Your task to perform on an android device: change keyboard looks Image 0: 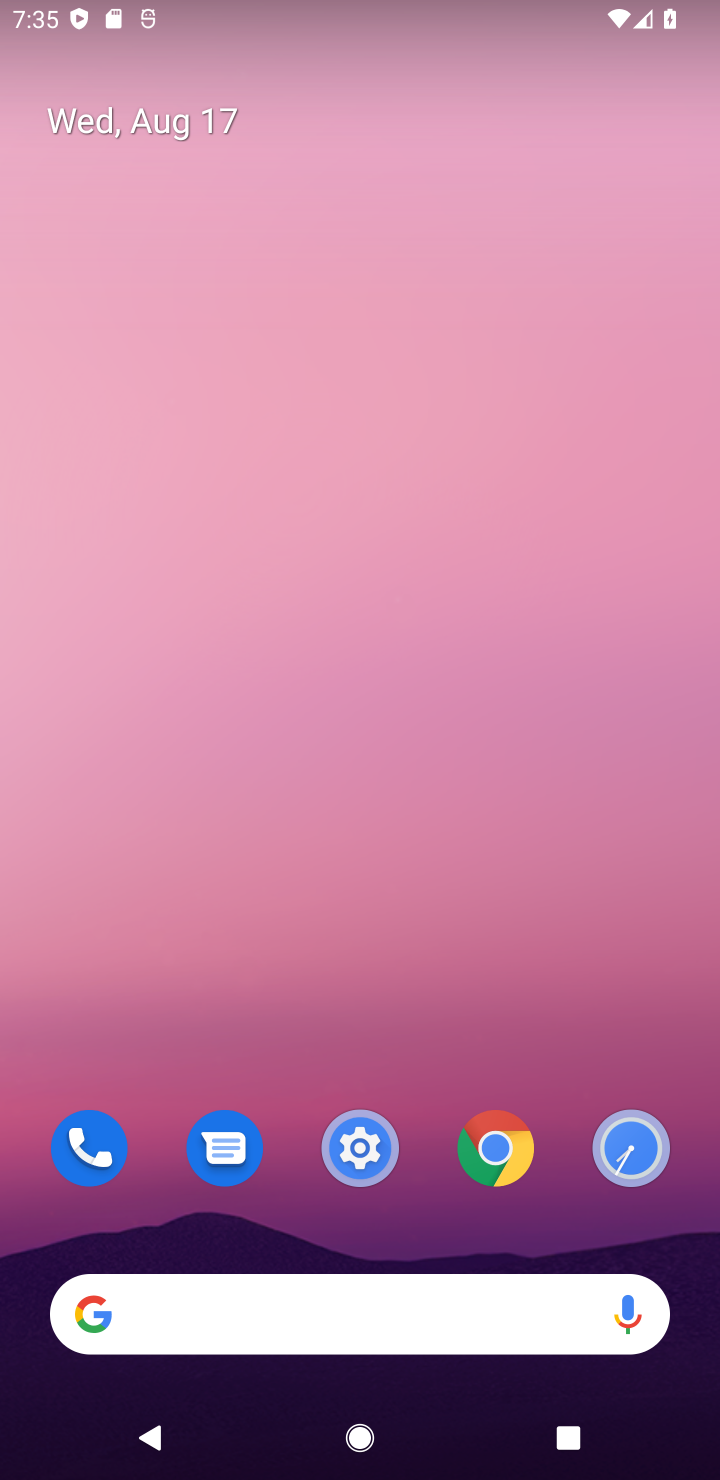
Step 0: click (360, 1149)
Your task to perform on an android device: change keyboard looks Image 1: 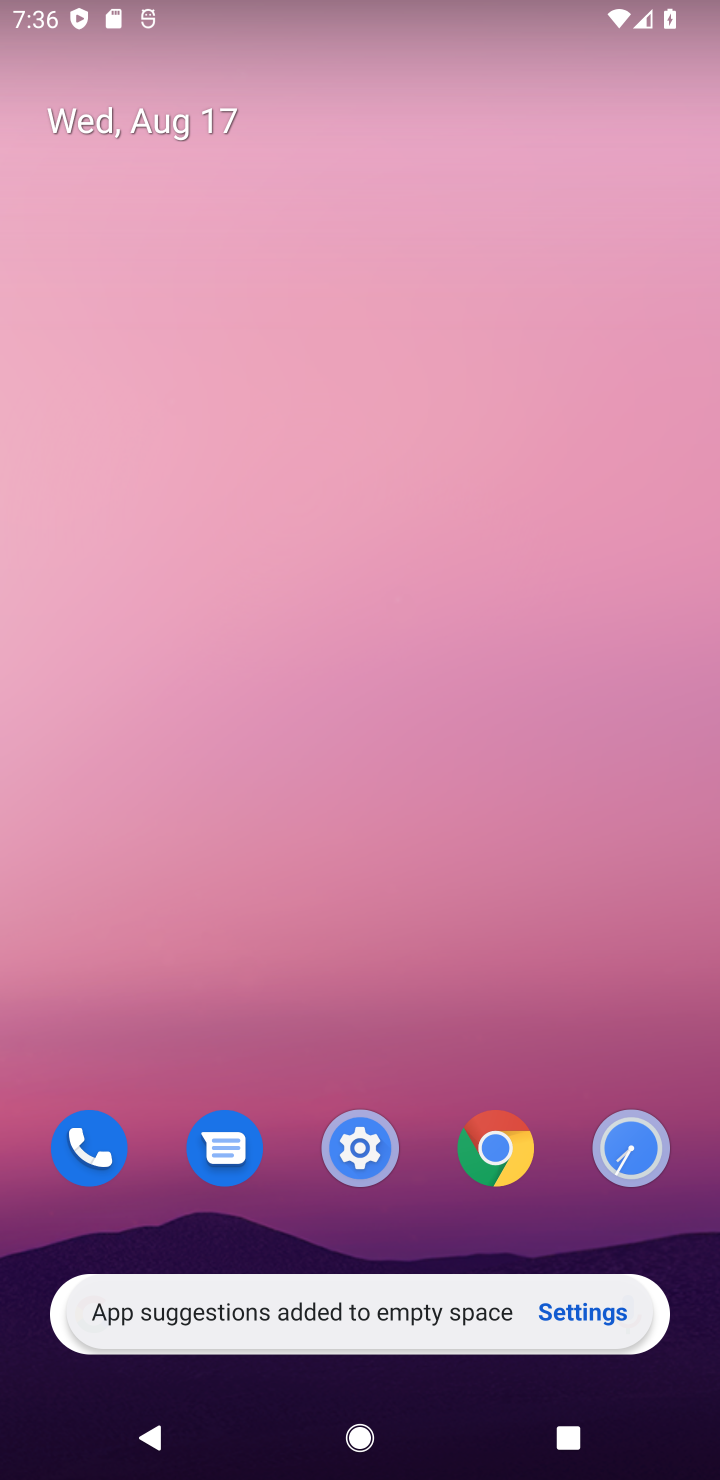
Step 1: click (360, 1149)
Your task to perform on an android device: change keyboard looks Image 2: 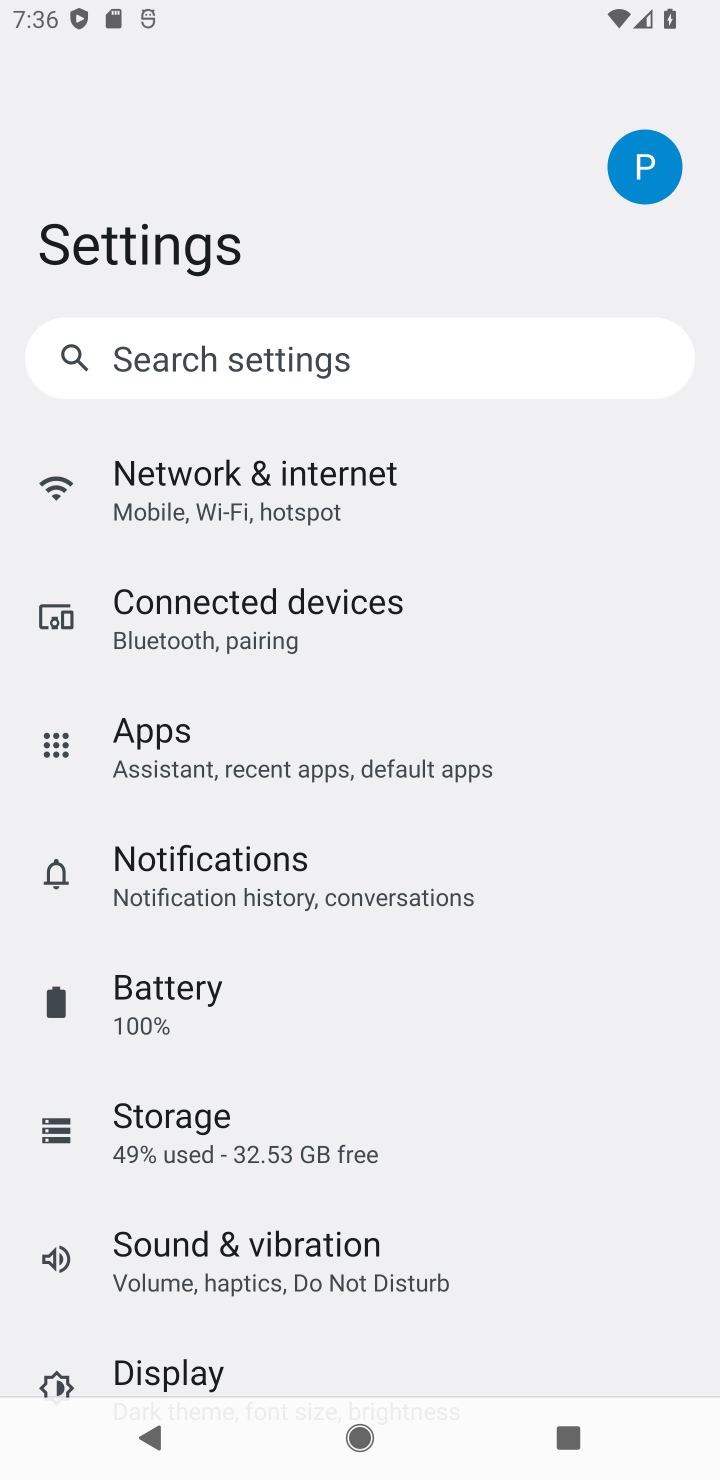
Step 2: drag from (561, 1298) to (542, 546)
Your task to perform on an android device: change keyboard looks Image 3: 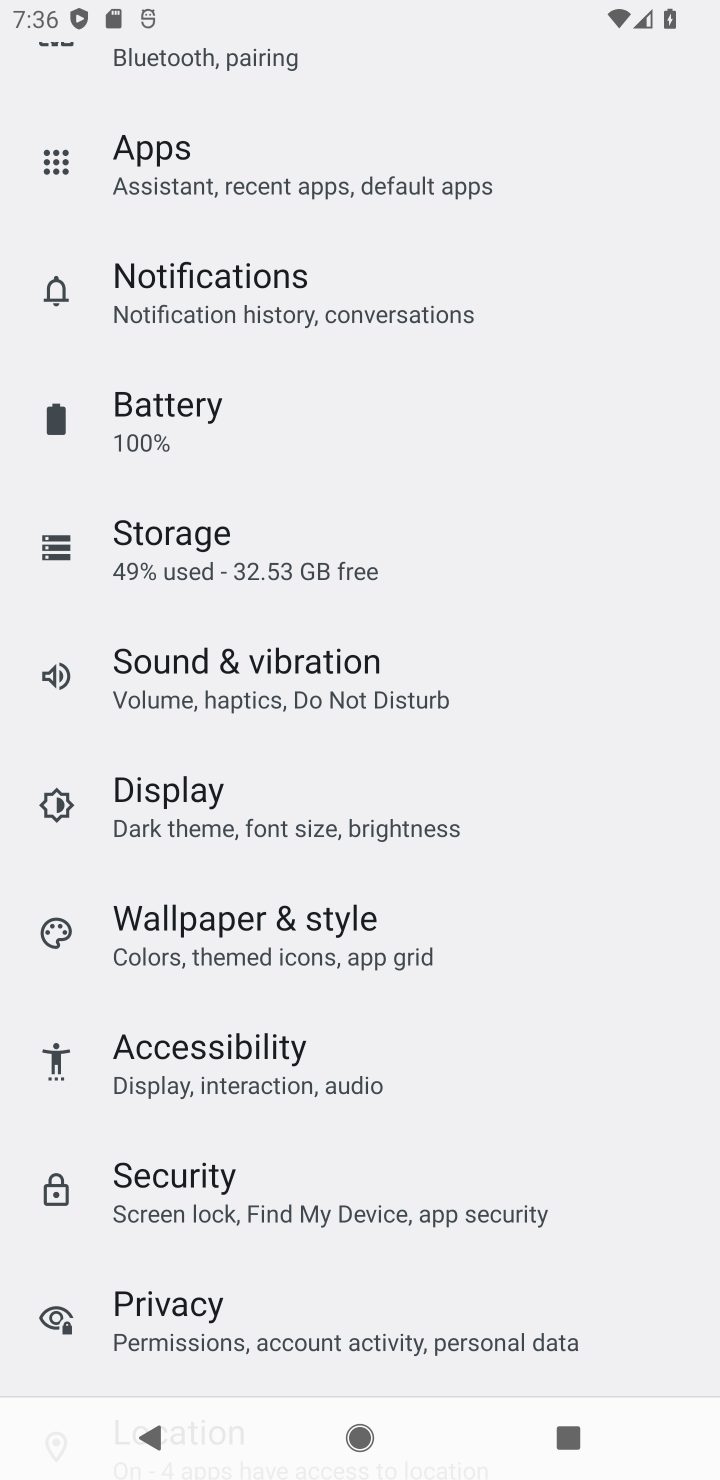
Step 3: drag from (533, 1205) to (480, 551)
Your task to perform on an android device: change keyboard looks Image 4: 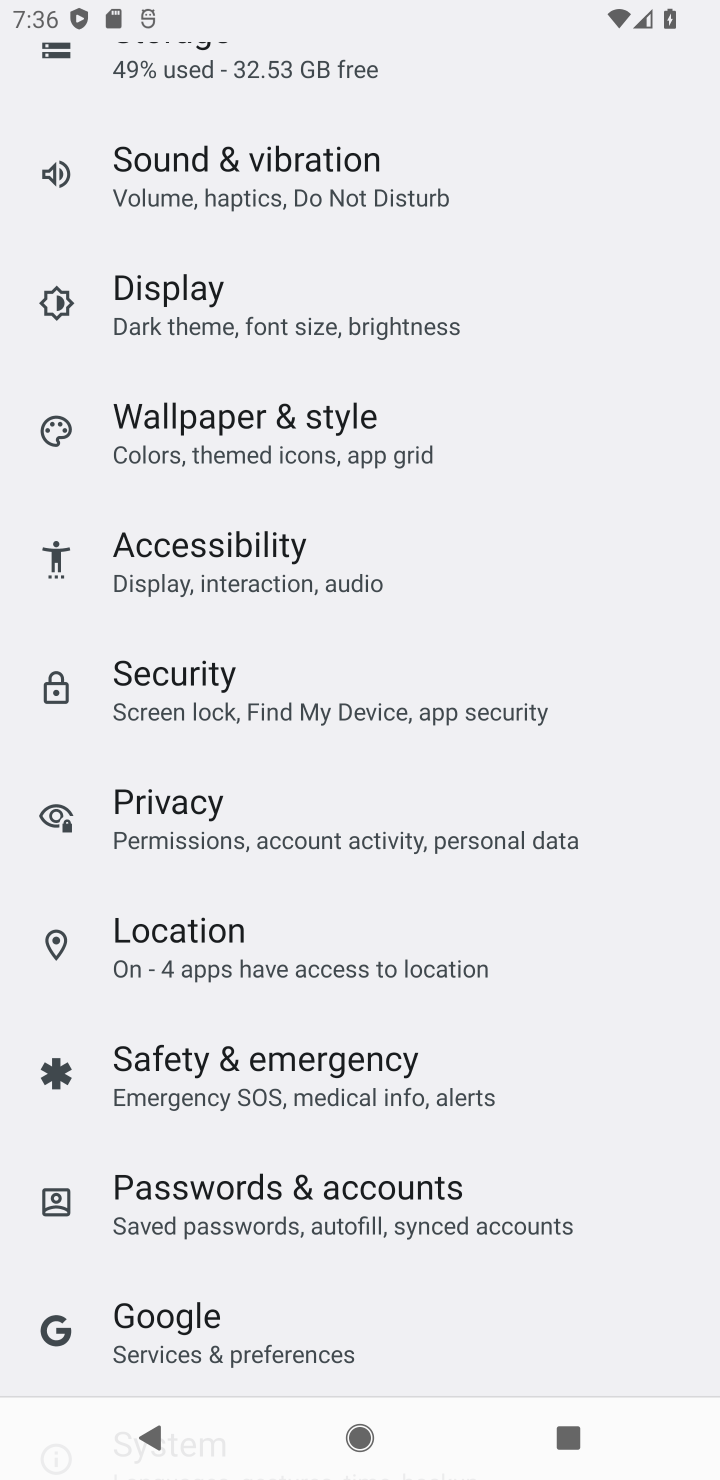
Step 4: drag from (326, 1273) to (420, 281)
Your task to perform on an android device: change keyboard looks Image 5: 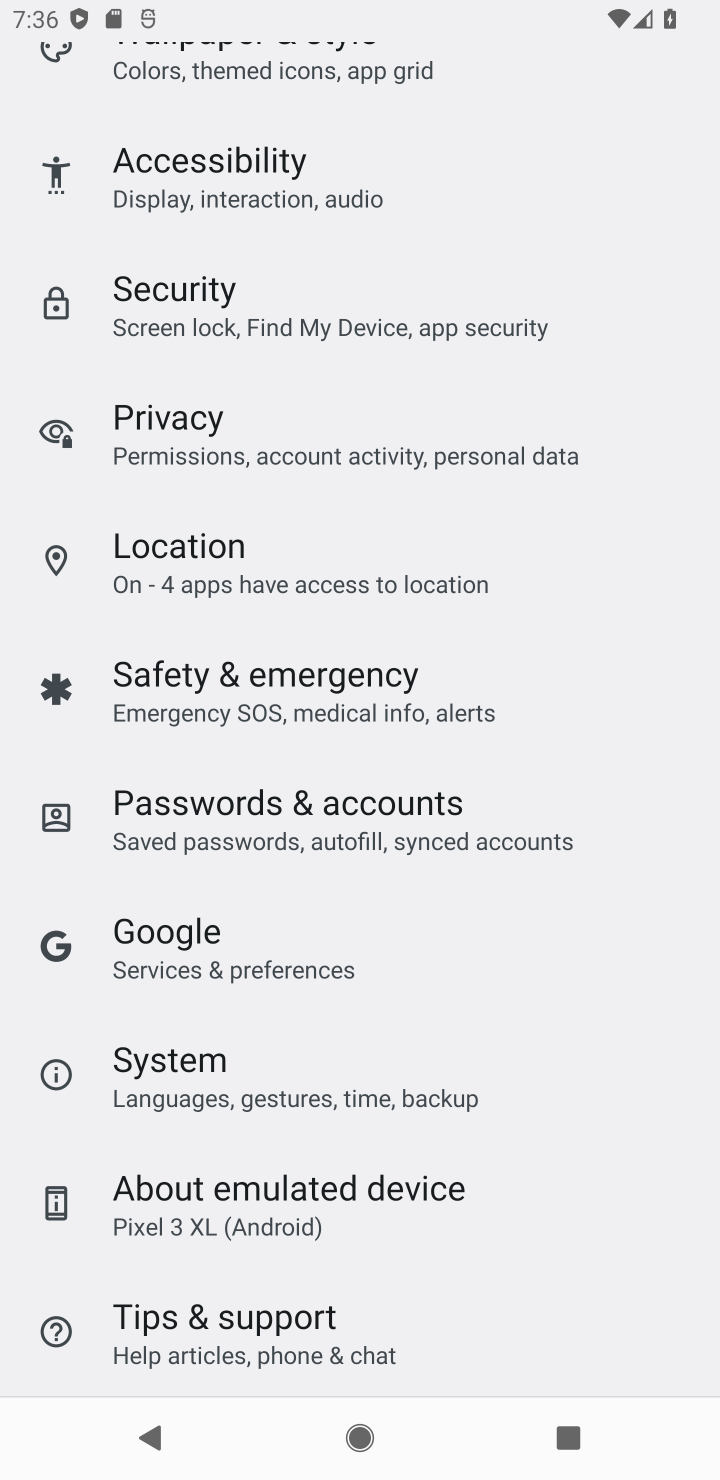
Step 5: click (204, 1058)
Your task to perform on an android device: change keyboard looks Image 6: 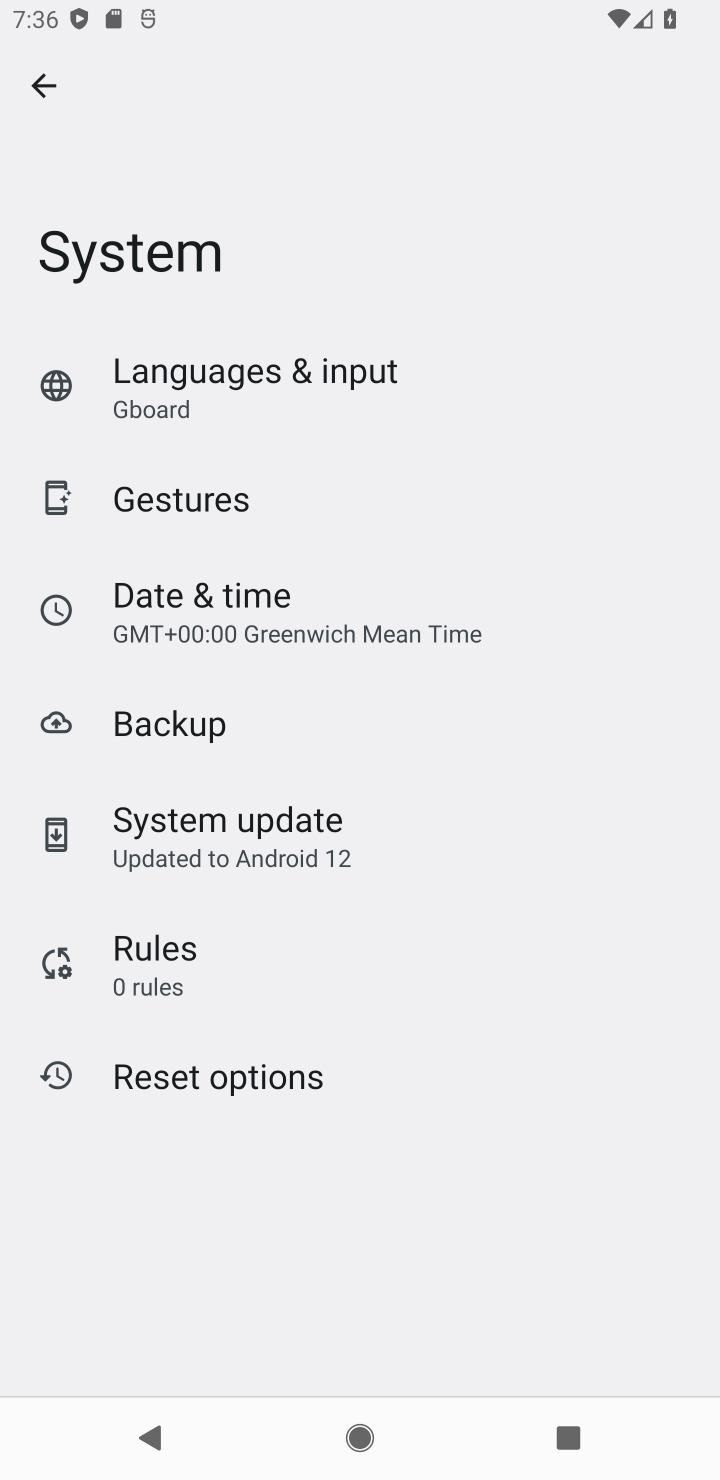
Step 6: click (181, 368)
Your task to perform on an android device: change keyboard looks Image 7: 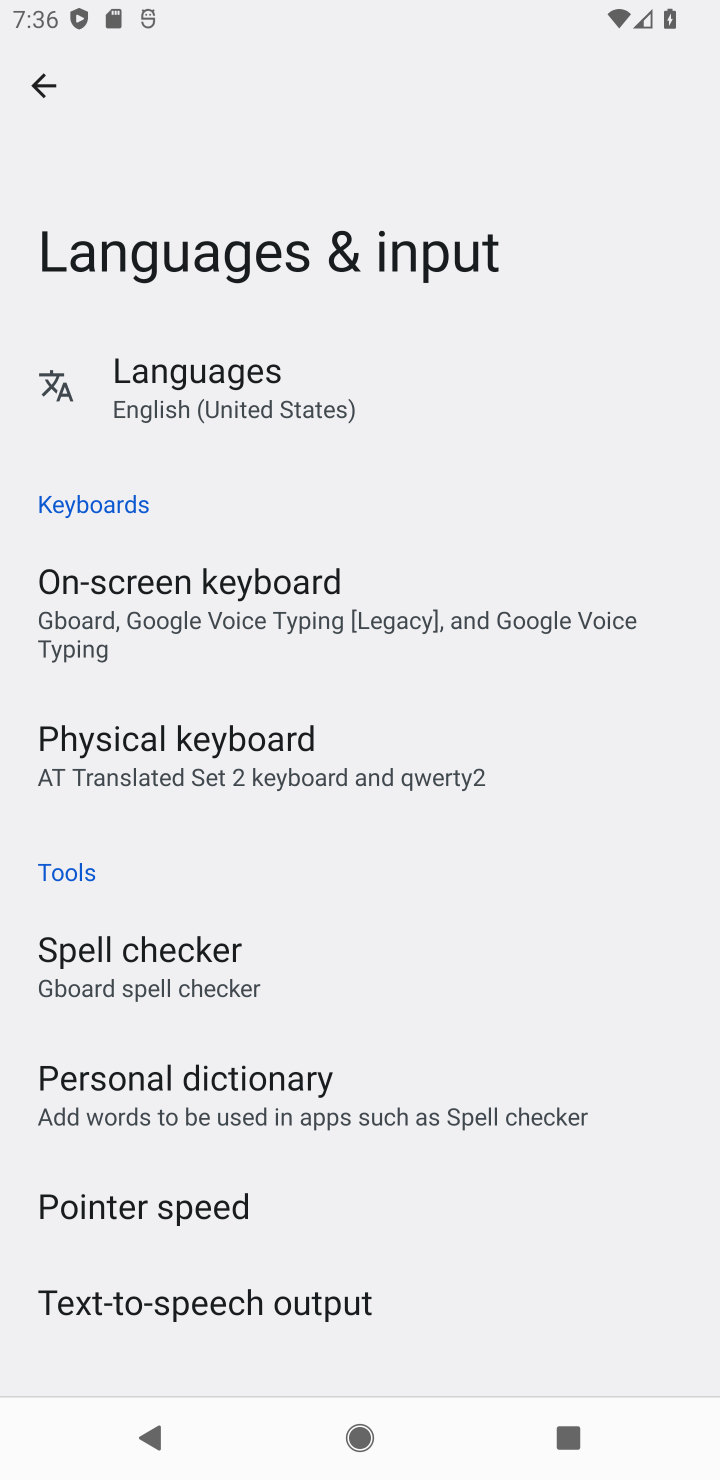
Step 7: click (215, 732)
Your task to perform on an android device: change keyboard looks Image 8: 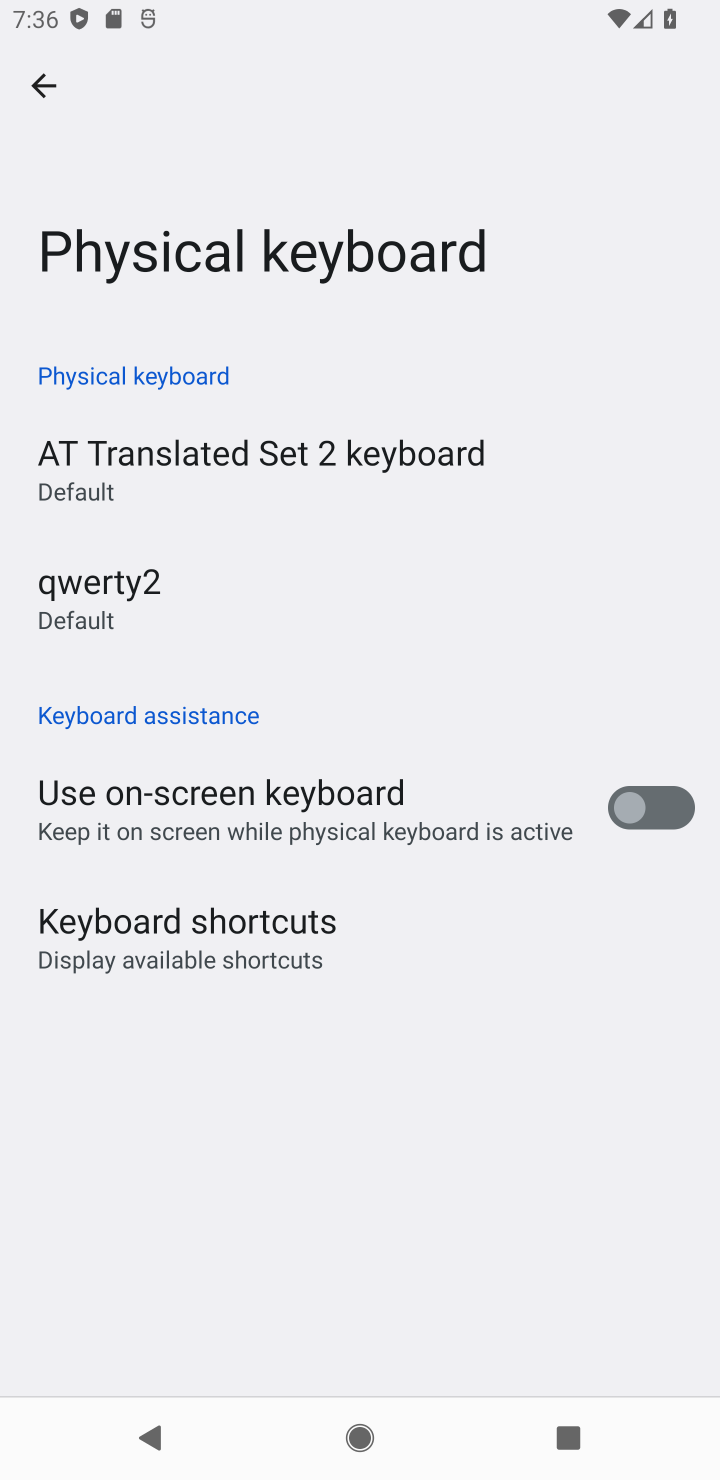
Step 8: click (94, 571)
Your task to perform on an android device: change keyboard looks Image 9: 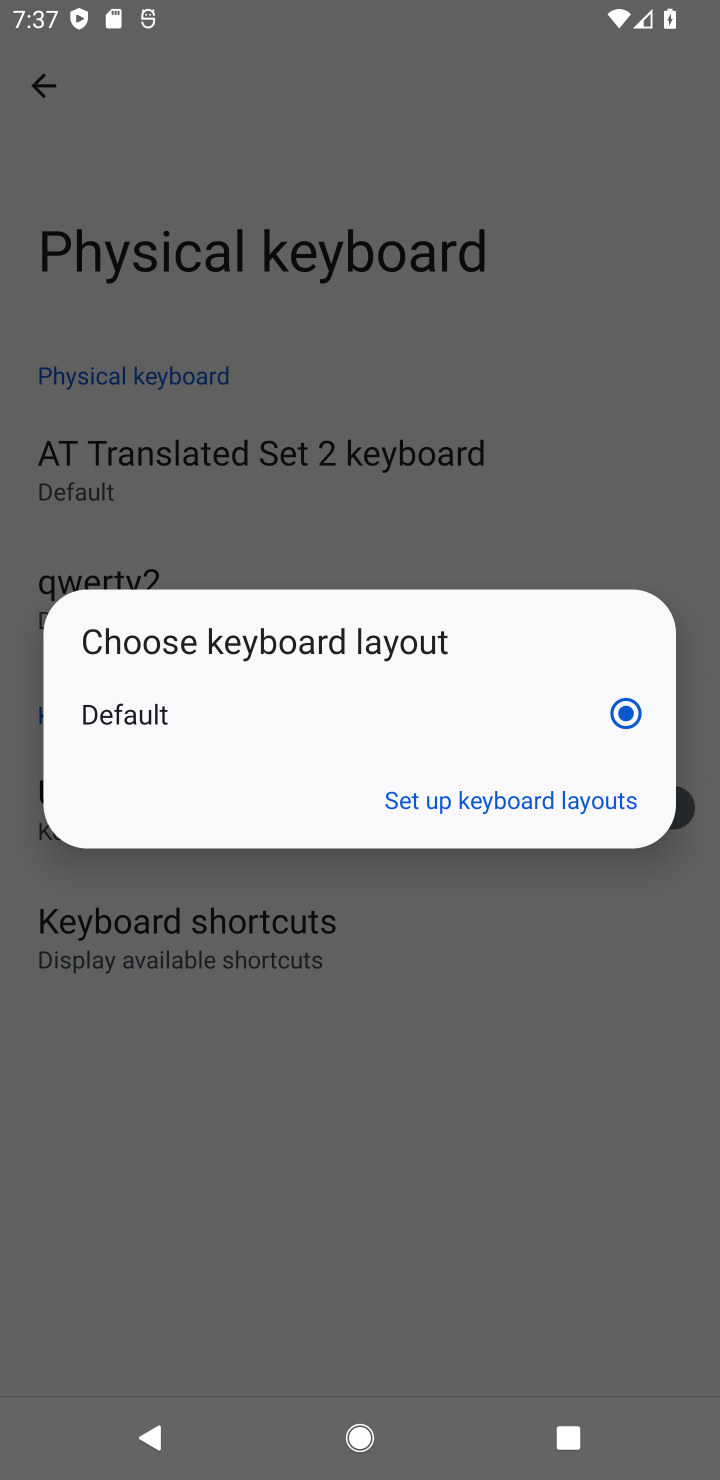
Step 9: click (497, 786)
Your task to perform on an android device: change keyboard looks Image 10: 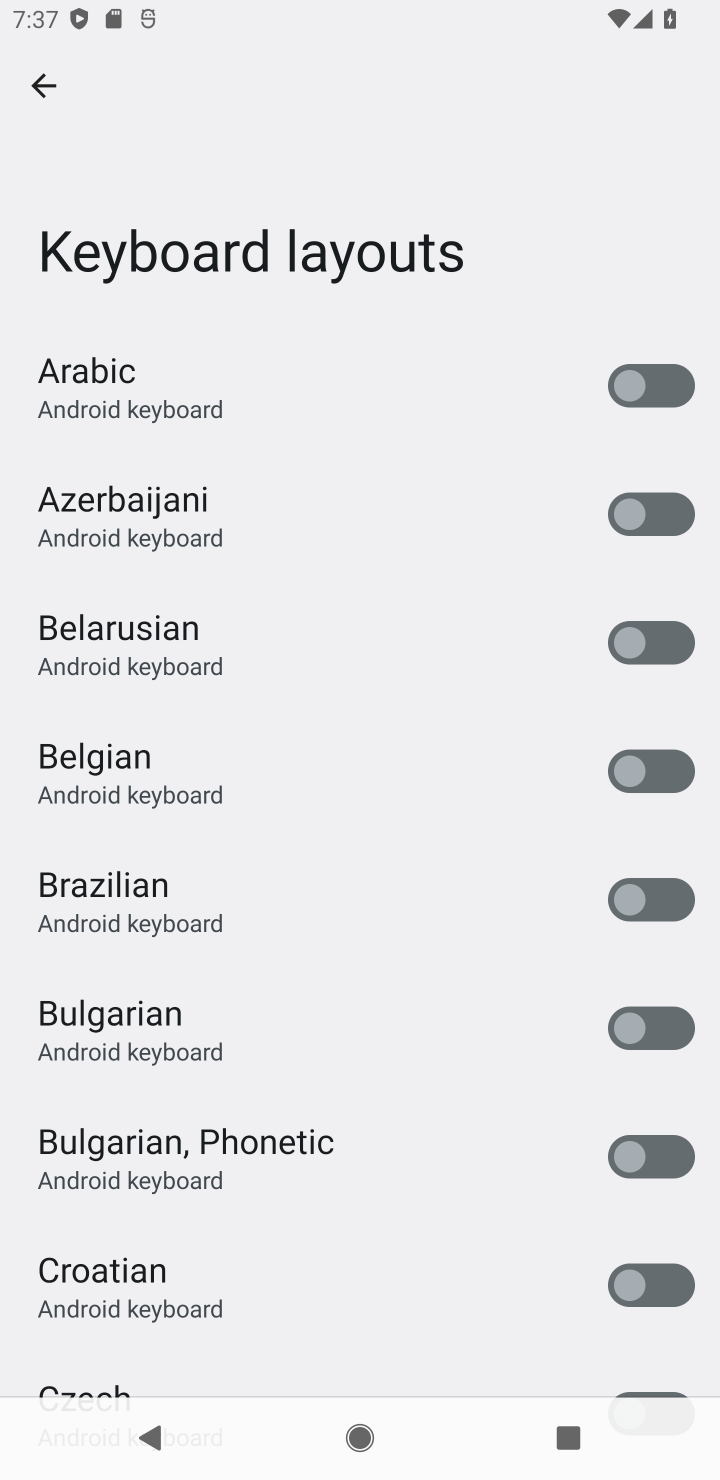
Step 10: click (672, 1160)
Your task to perform on an android device: change keyboard looks Image 11: 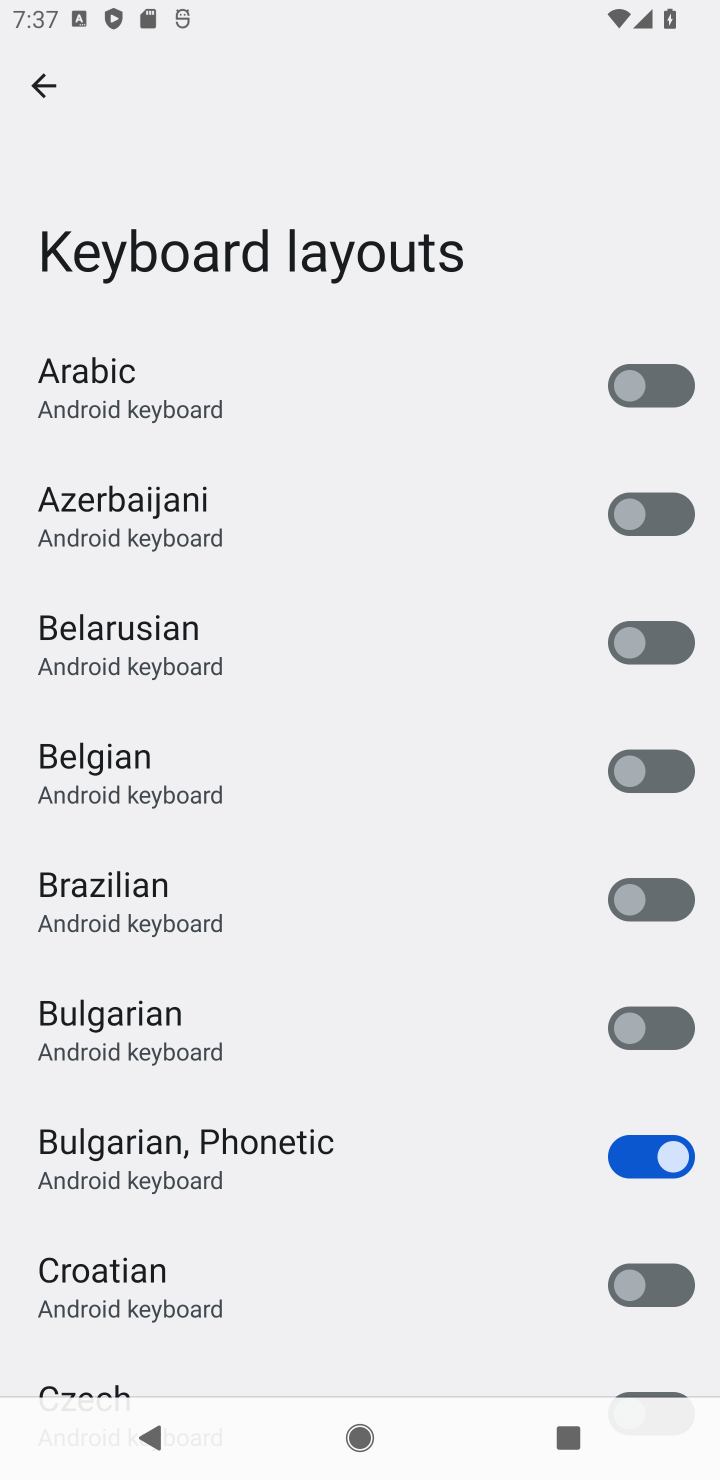
Step 11: task complete